Your task to perform on an android device: Go to privacy settings Image 0: 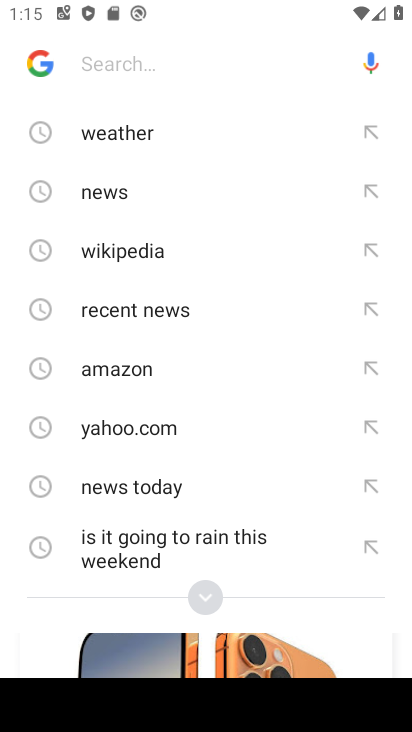
Step 0: press home button
Your task to perform on an android device: Go to privacy settings Image 1: 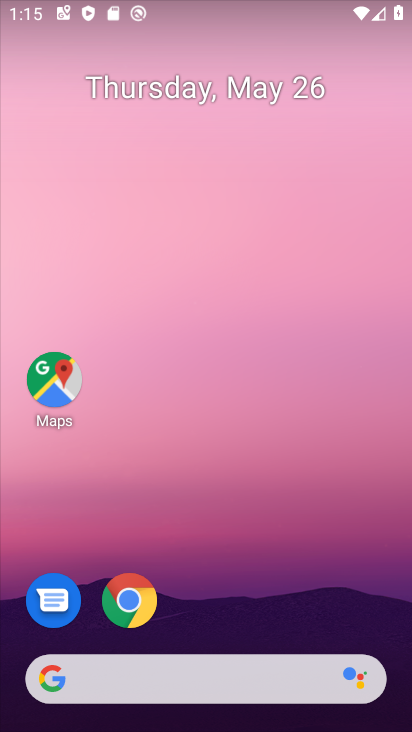
Step 1: drag from (200, 457) to (170, 134)
Your task to perform on an android device: Go to privacy settings Image 2: 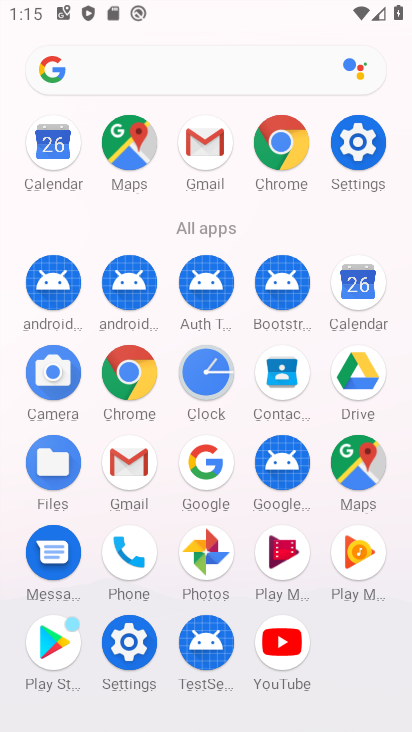
Step 2: click (365, 147)
Your task to perform on an android device: Go to privacy settings Image 3: 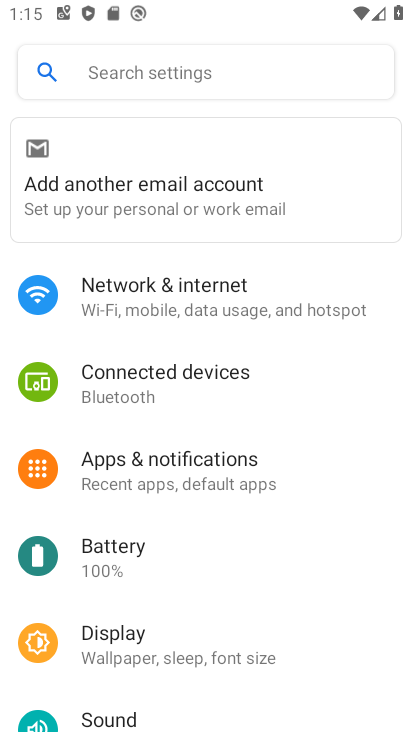
Step 3: drag from (194, 608) to (189, 339)
Your task to perform on an android device: Go to privacy settings Image 4: 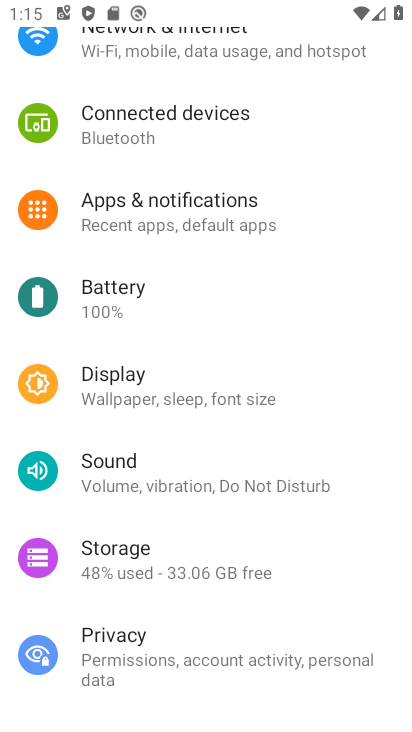
Step 4: click (137, 660)
Your task to perform on an android device: Go to privacy settings Image 5: 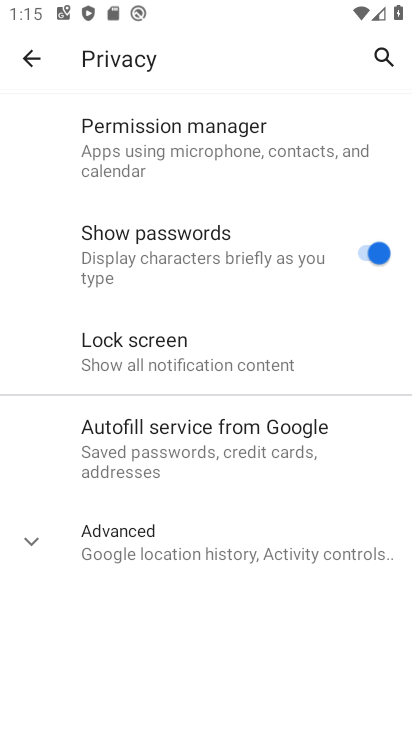
Step 5: task complete